Your task to perform on an android device: Open the Play Movies app and select the watchlist tab. Image 0: 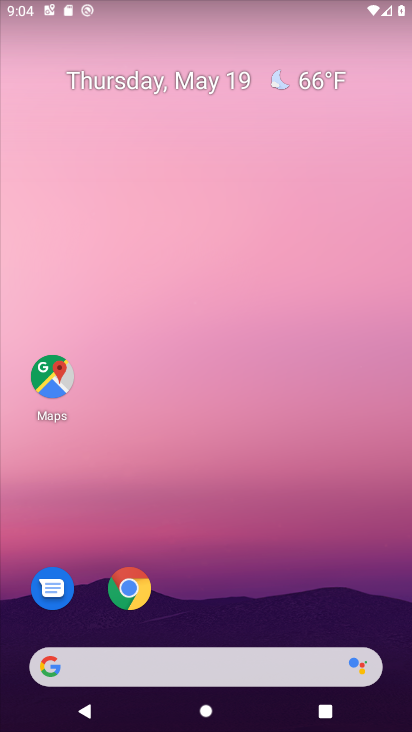
Step 0: drag from (361, 613) to (359, 315)
Your task to perform on an android device: Open the Play Movies app and select the watchlist tab. Image 1: 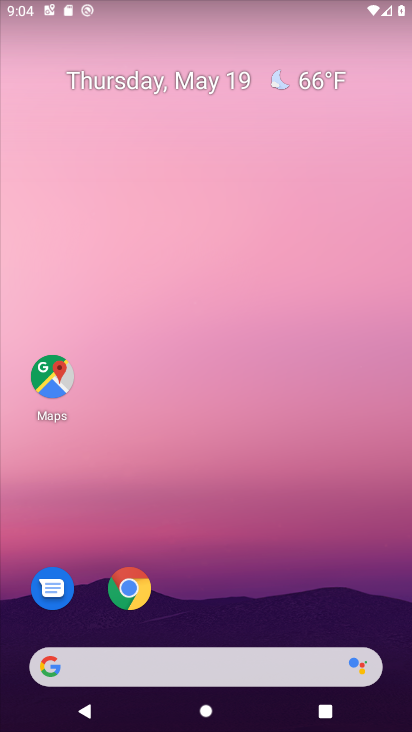
Step 1: drag from (382, 595) to (386, 256)
Your task to perform on an android device: Open the Play Movies app and select the watchlist tab. Image 2: 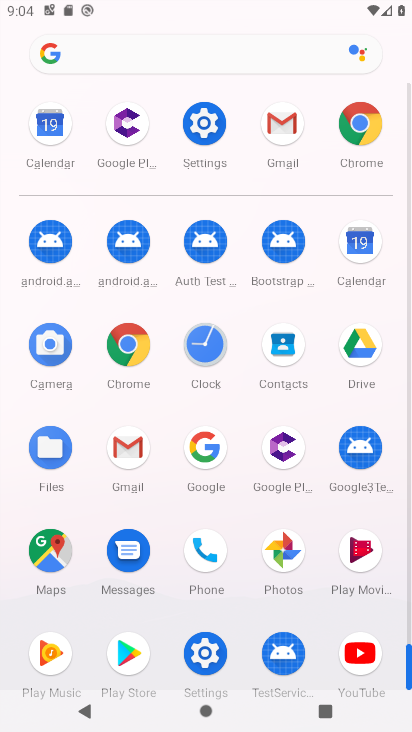
Step 2: click (366, 565)
Your task to perform on an android device: Open the Play Movies app and select the watchlist tab. Image 3: 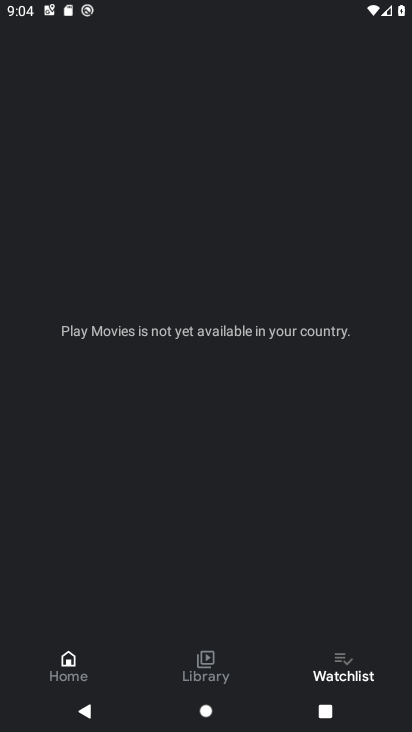
Step 3: task complete